Your task to perform on an android device: turn off airplane mode Image 0: 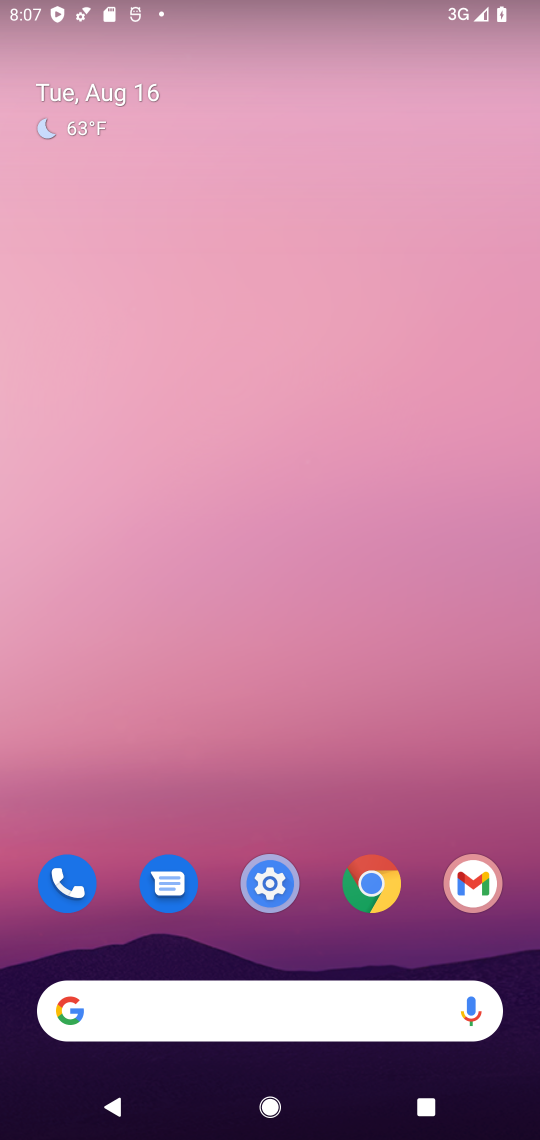
Step 0: drag from (374, 5) to (271, 1096)
Your task to perform on an android device: turn off airplane mode Image 1: 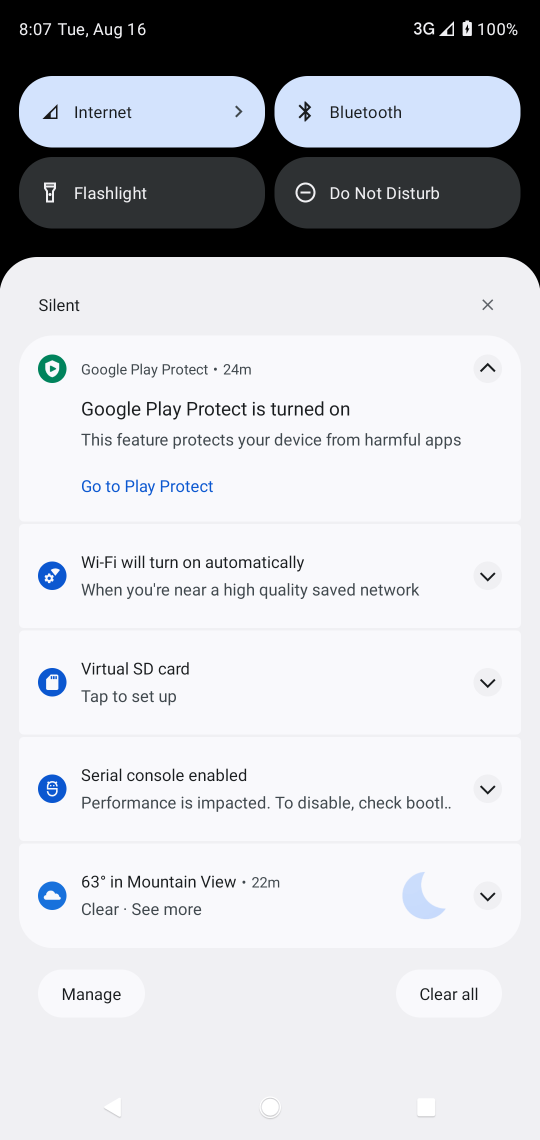
Step 1: task complete